Your task to perform on an android device: find which apps use the phone's location Image 0: 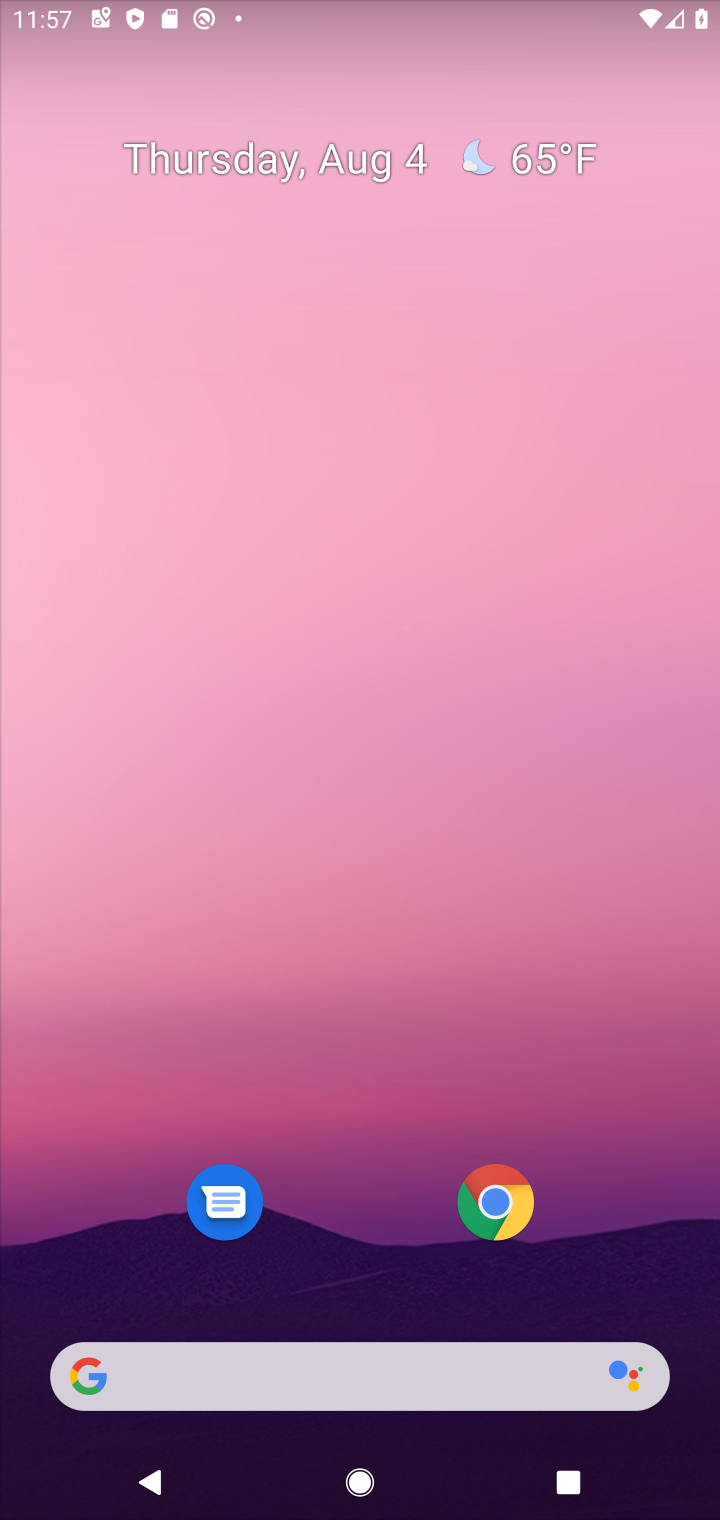
Step 0: press back button
Your task to perform on an android device: find which apps use the phone's location Image 1: 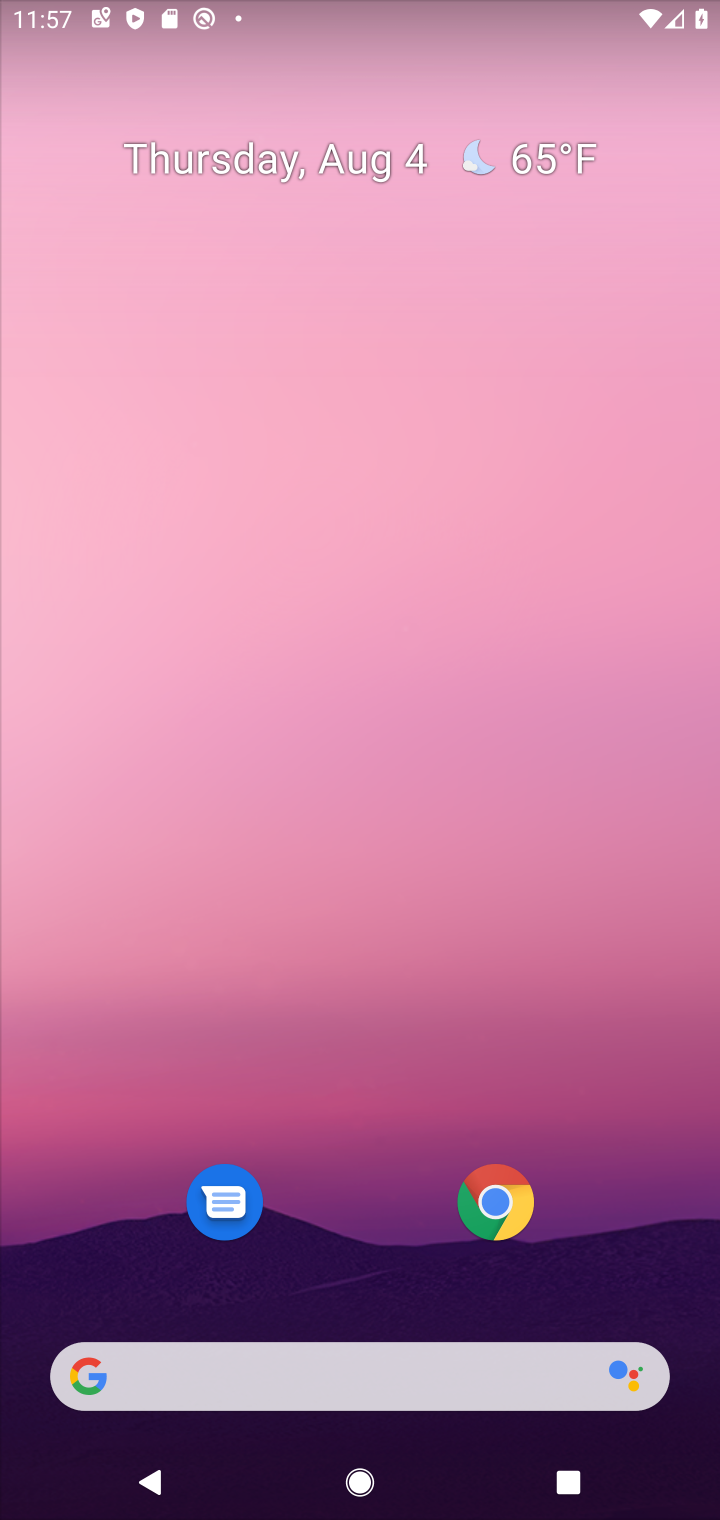
Step 1: drag from (161, 7) to (80, 1190)
Your task to perform on an android device: find which apps use the phone's location Image 2: 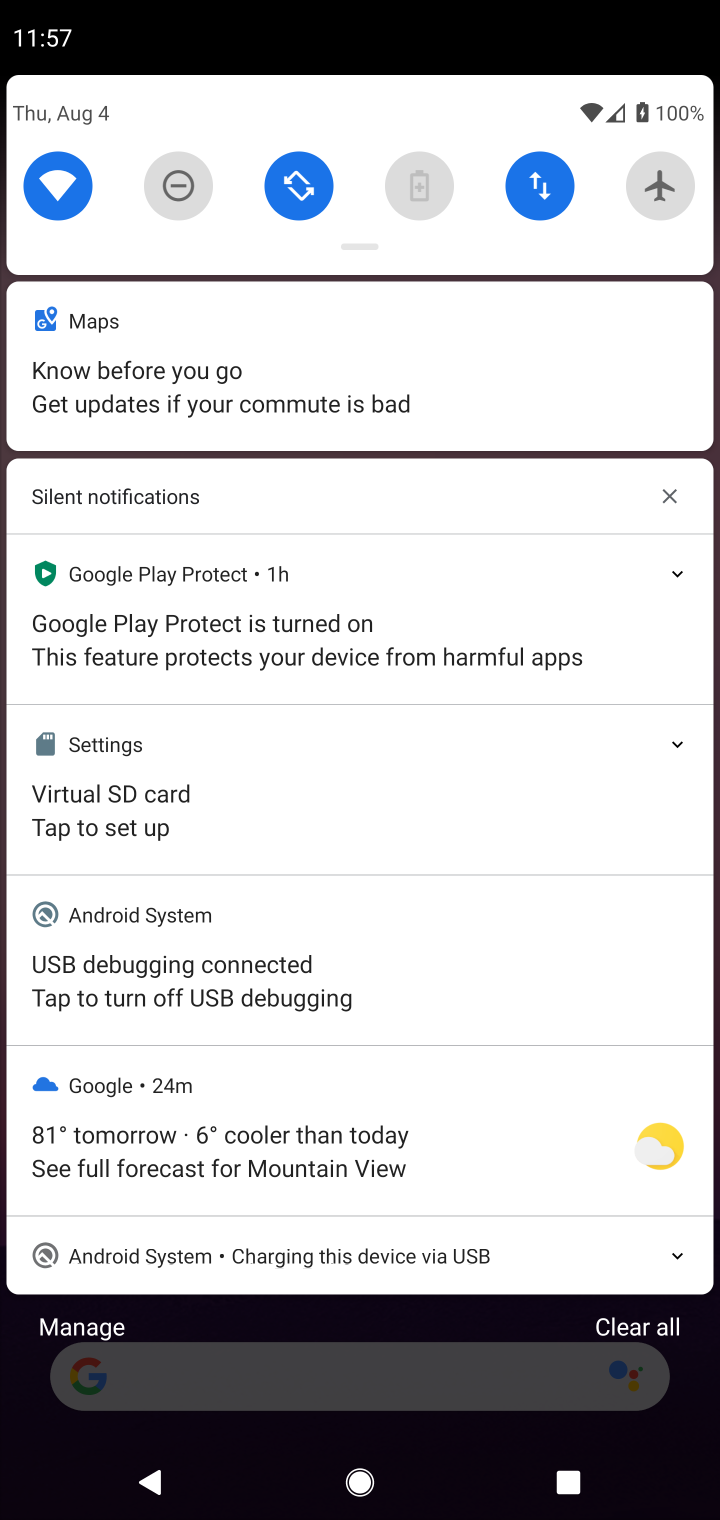
Step 2: drag from (363, 1333) to (538, 98)
Your task to perform on an android device: find which apps use the phone's location Image 3: 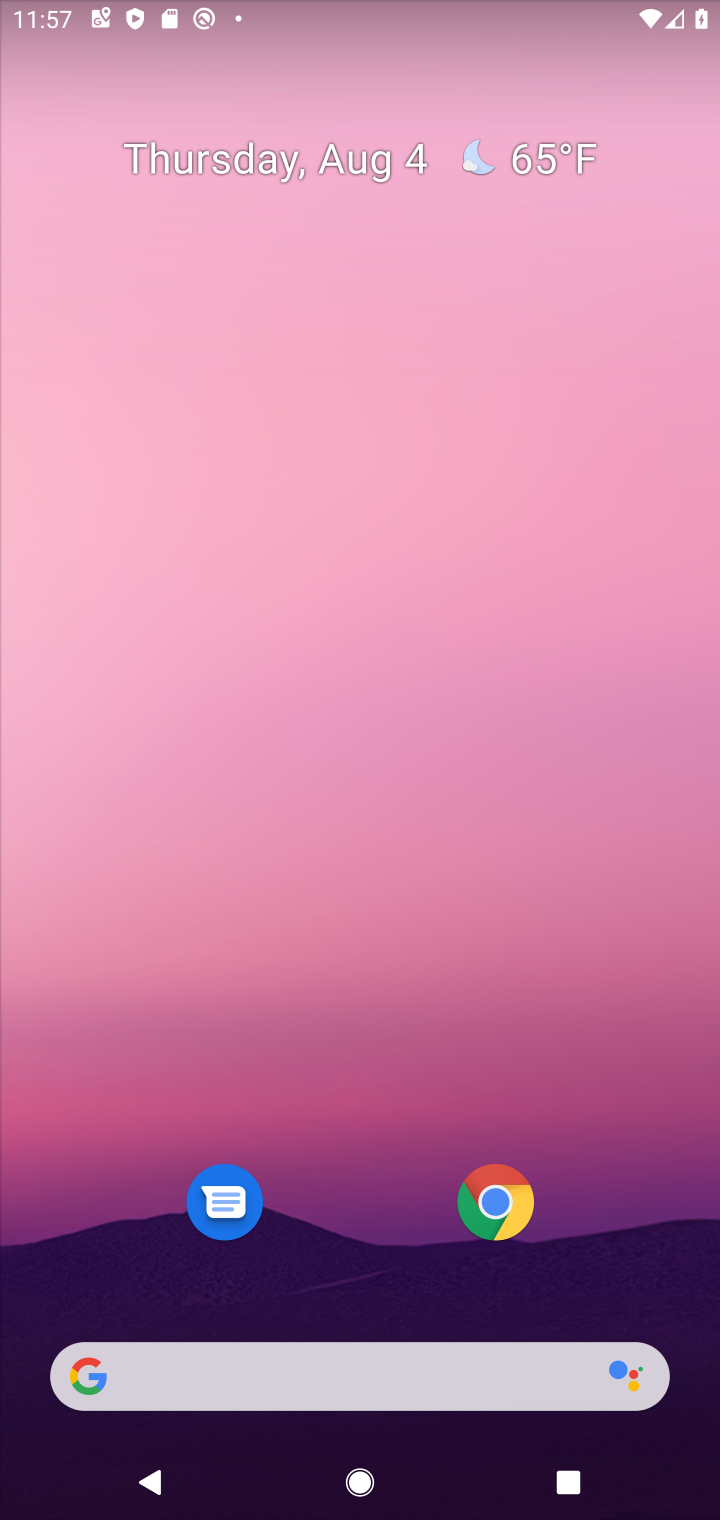
Step 3: drag from (359, 687) to (387, 18)
Your task to perform on an android device: find which apps use the phone's location Image 4: 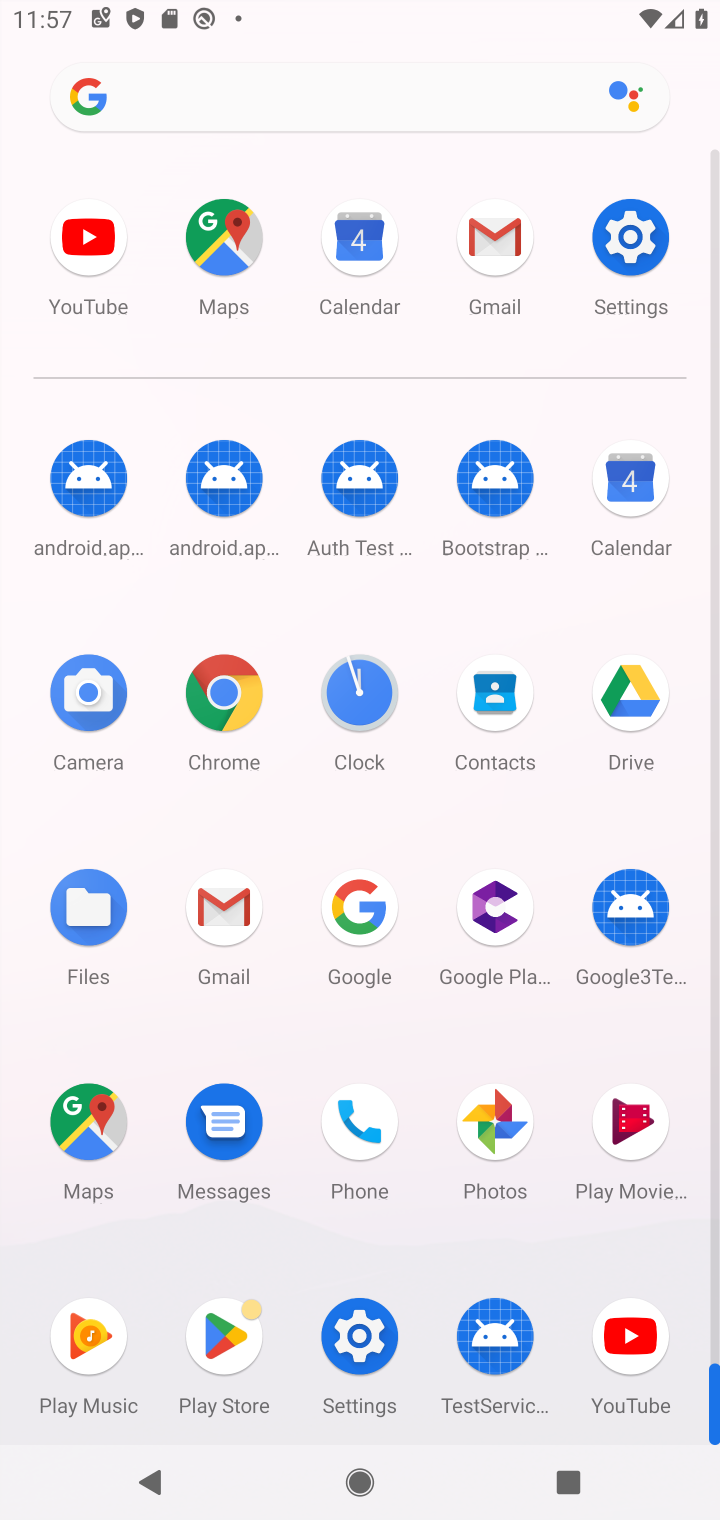
Step 4: click (638, 240)
Your task to perform on an android device: find which apps use the phone's location Image 5: 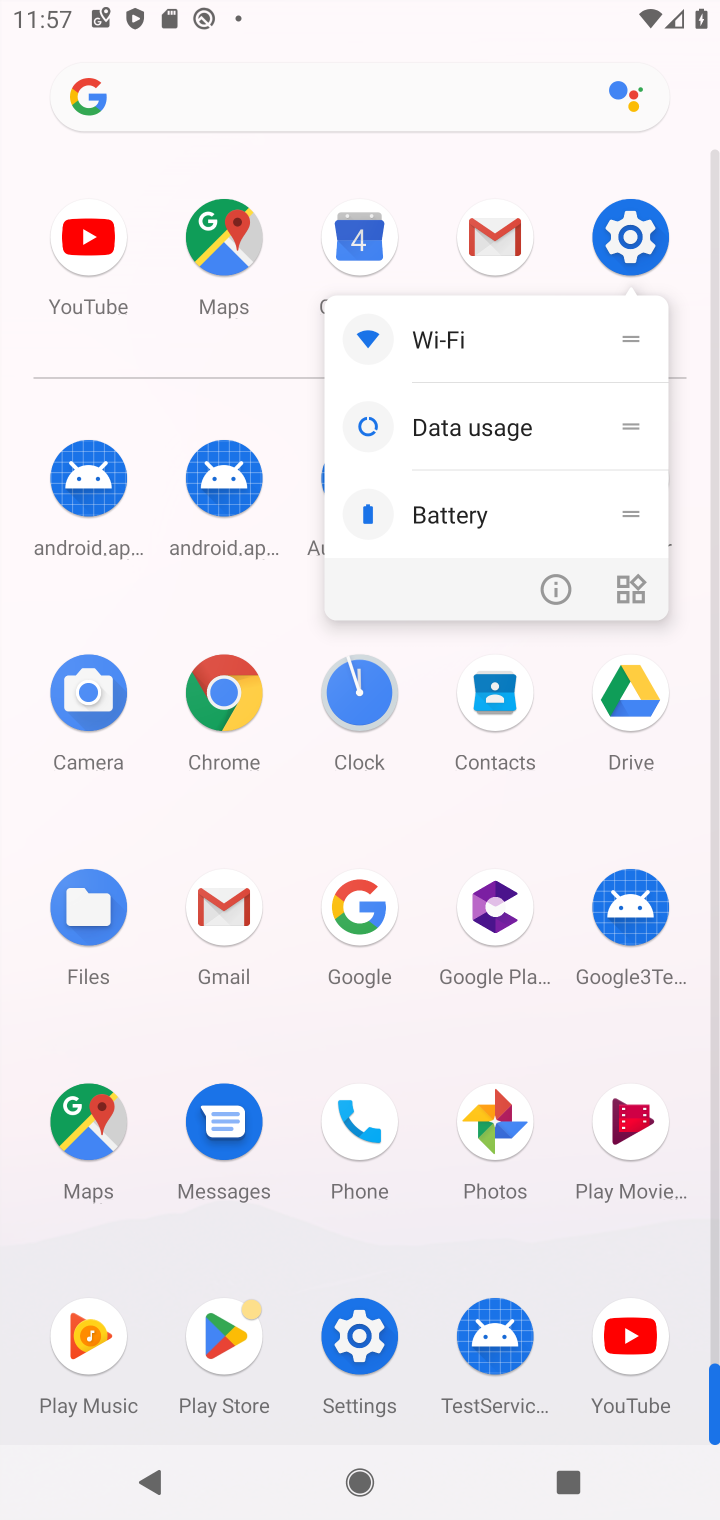
Step 5: click (633, 227)
Your task to perform on an android device: find which apps use the phone's location Image 6: 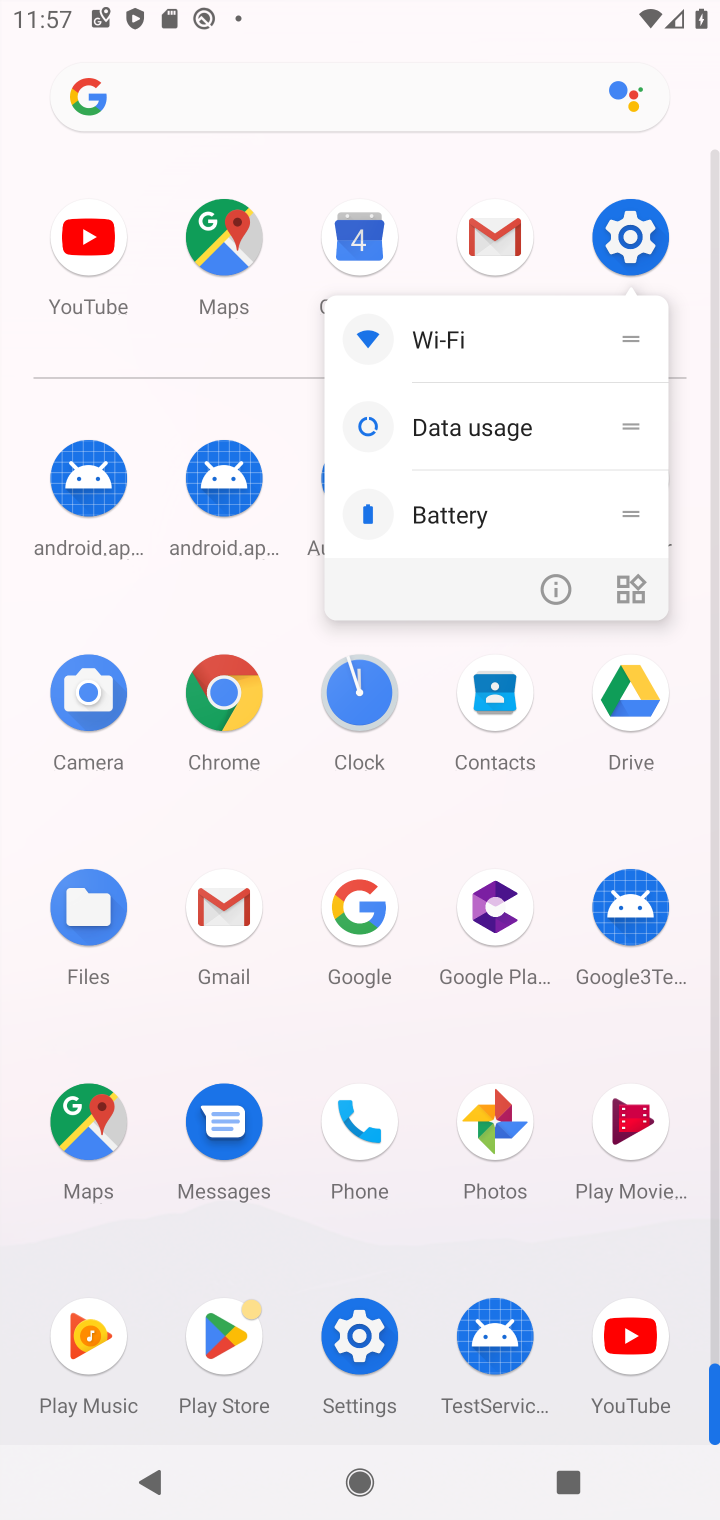
Step 6: click (633, 227)
Your task to perform on an android device: find which apps use the phone's location Image 7: 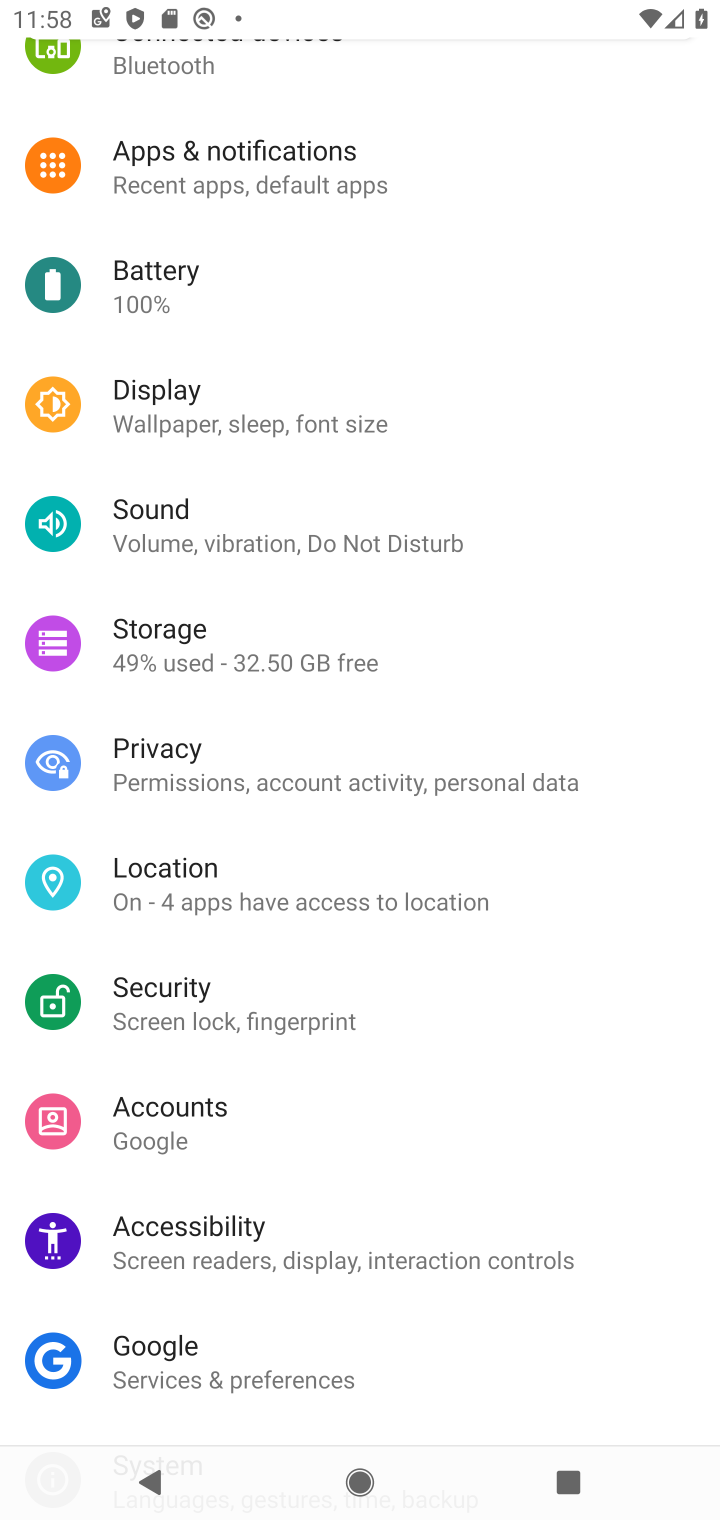
Step 7: drag from (497, 398) to (396, 1207)
Your task to perform on an android device: find which apps use the phone's location Image 8: 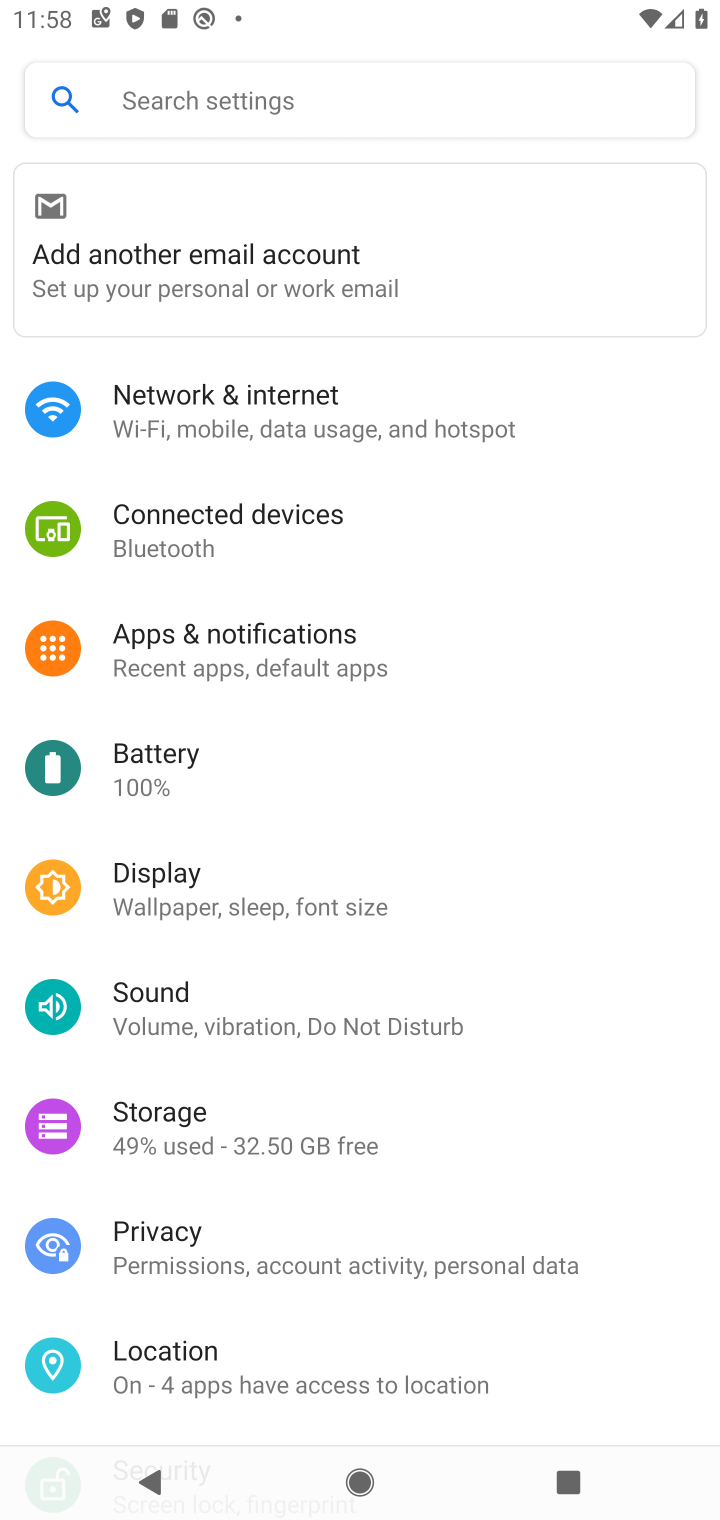
Step 8: click (238, 1371)
Your task to perform on an android device: find which apps use the phone's location Image 9: 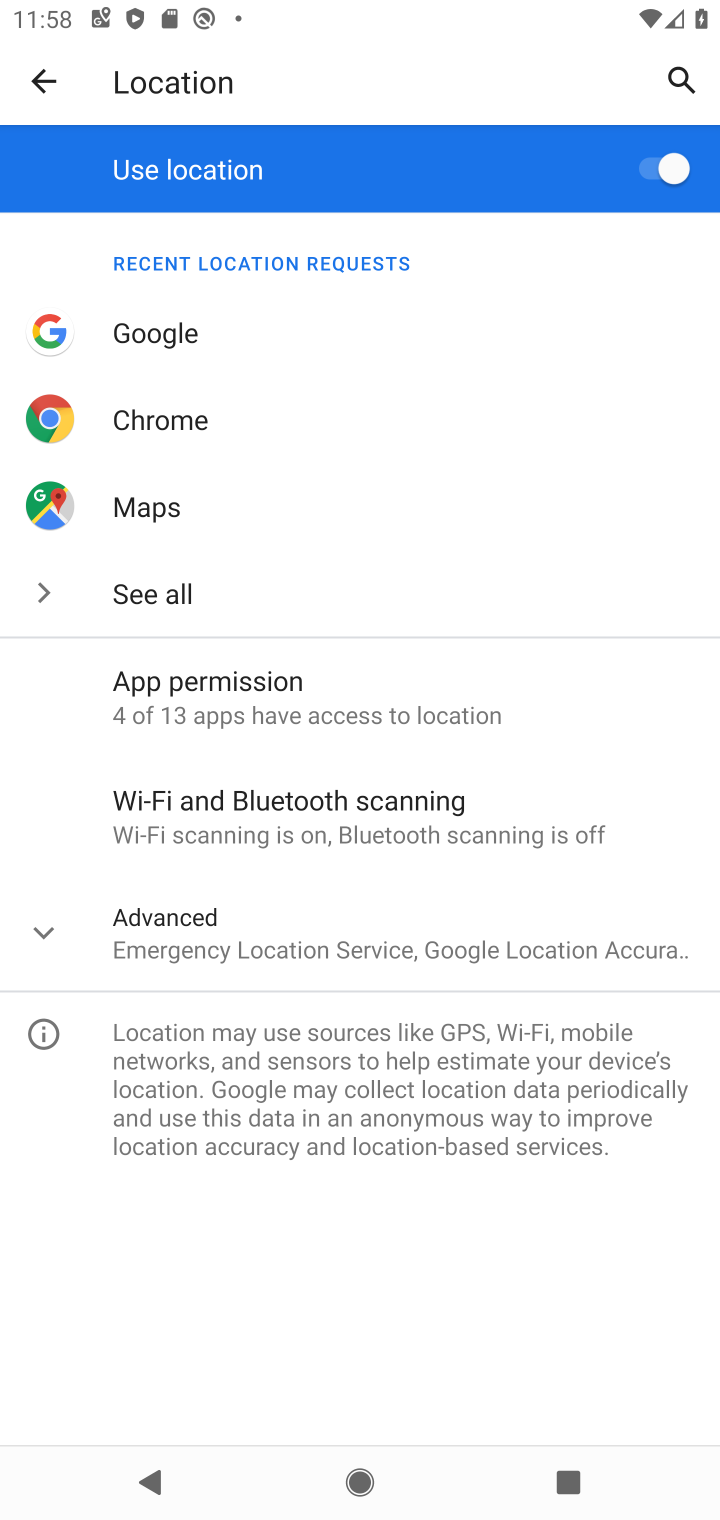
Step 9: click (180, 692)
Your task to perform on an android device: find which apps use the phone's location Image 10: 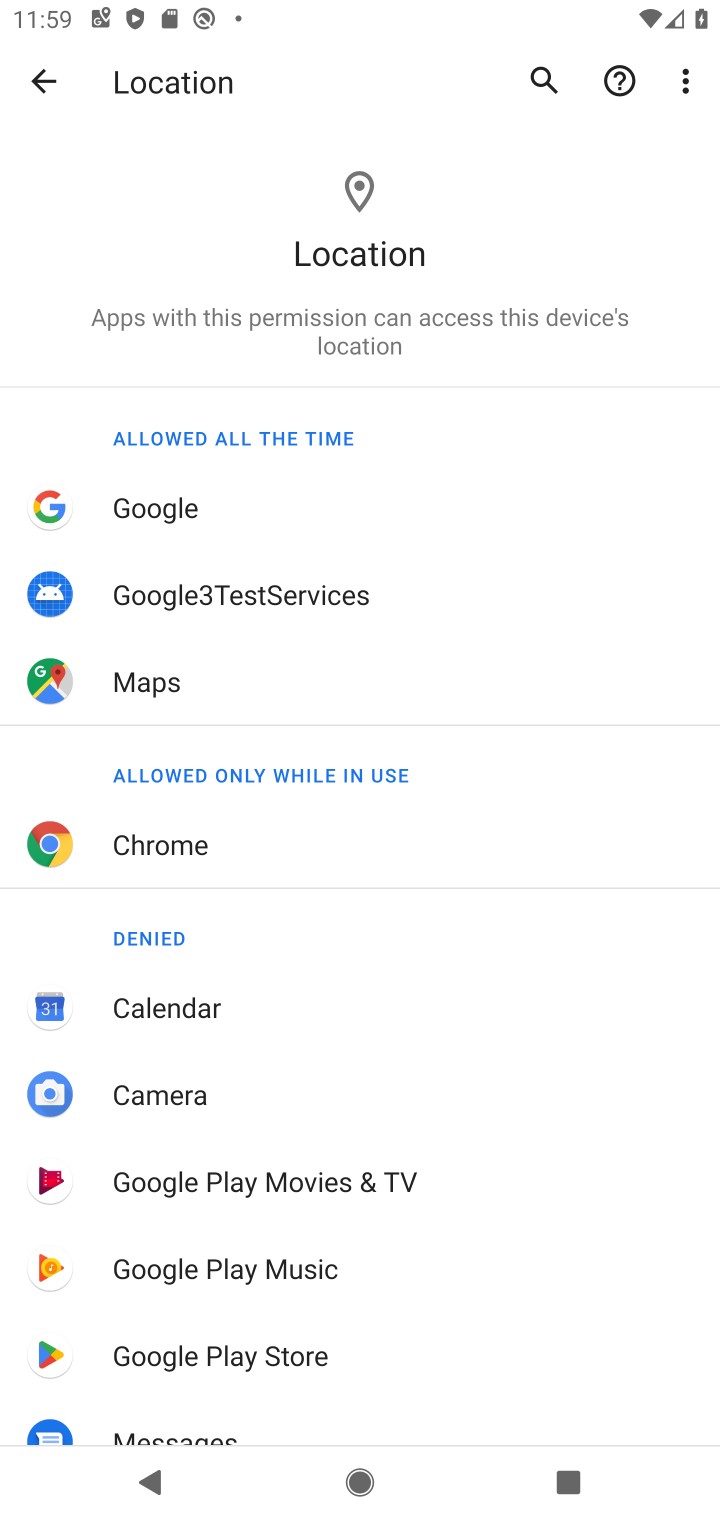
Step 10: task complete